Your task to perform on an android device: create a new album in the google photos Image 0: 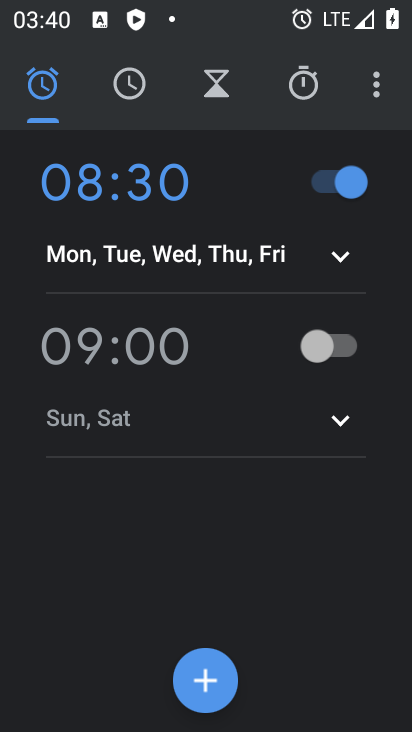
Step 0: press home button
Your task to perform on an android device: create a new album in the google photos Image 1: 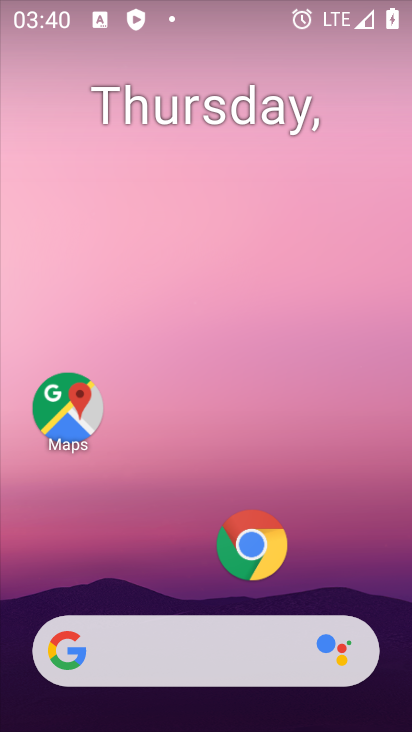
Step 1: drag from (153, 647) to (304, 1)
Your task to perform on an android device: create a new album in the google photos Image 2: 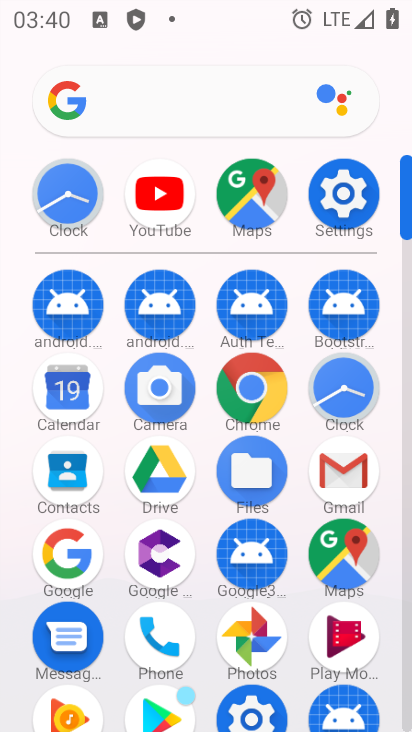
Step 2: click (242, 643)
Your task to perform on an android device: create a new album in the google photos Image 3: 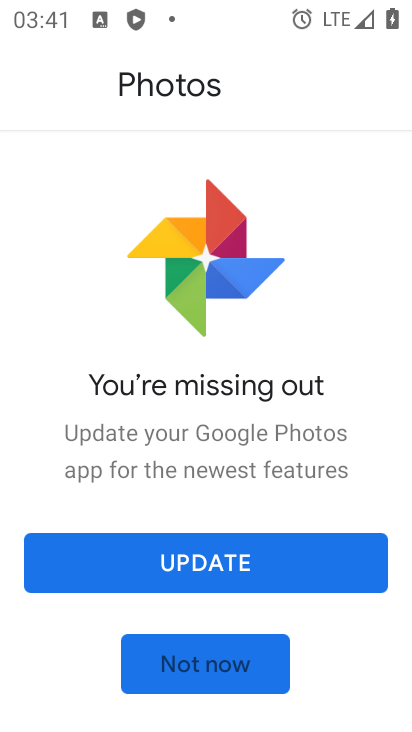
Step 3: click (235, 554)
Your task to perform on an android device: create a new album in the google photos Image 4: 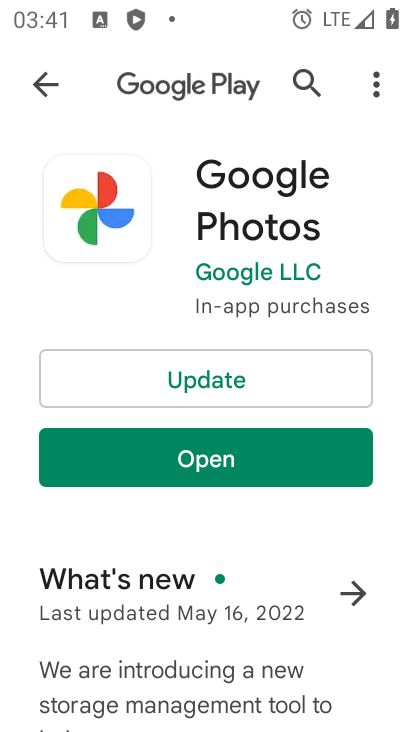
Step 4: click (246, 394)
Your task to perform on an android device: create a new album in the google photos Image 5: 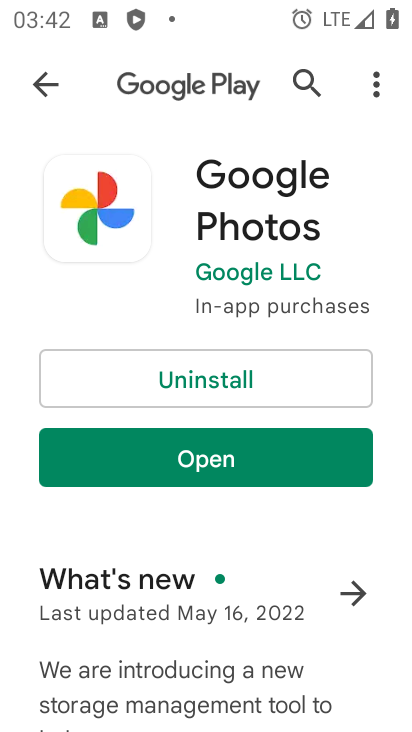
Step 5: click (235, 467)
Your task to perform on an android device: create a new album in the google photos Image 6: 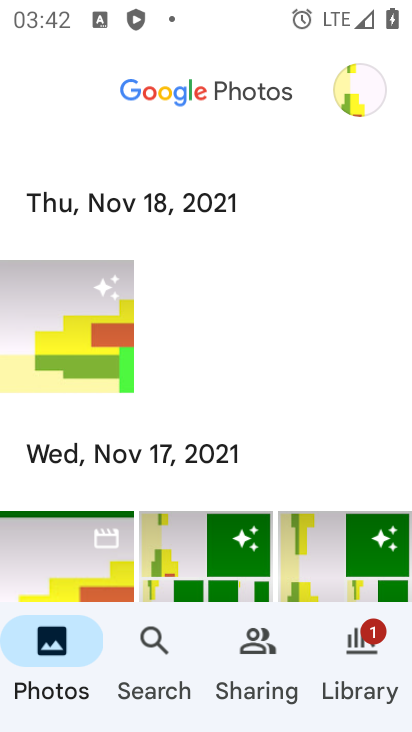
Step 6: drag from (235, 420) to (233, 43)
Your task to perform on an android device: create a new album in the google photos Image 7: 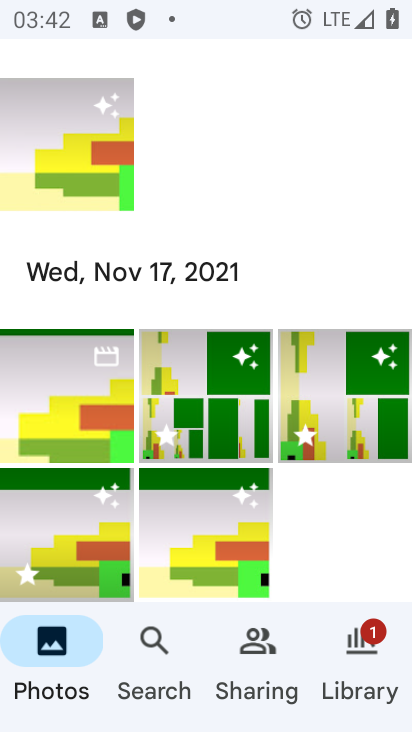
Step 7: drag from (332, 140) to (409, 692)
Your task to perform on an android device: create a new album in the google photos Image 8: 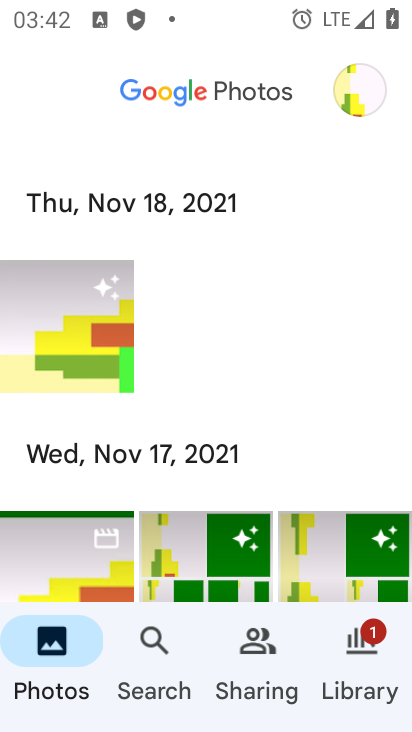
Step 8: click (369, 656)
Your task to perform on an android device: create a new album in the google photos Image 9: 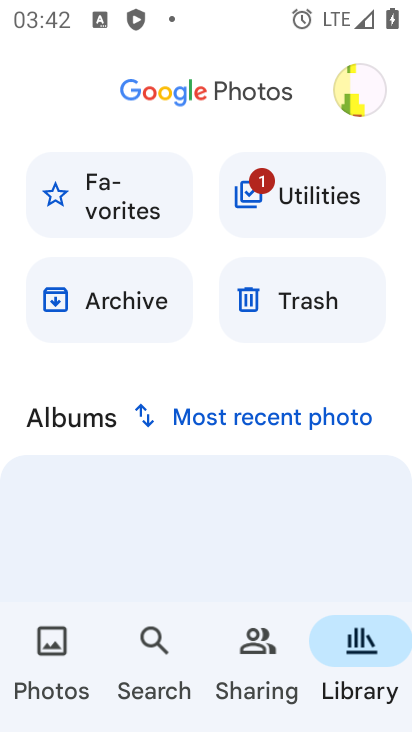
Step 9: drag from (178, 530) to (230, 77)
Your task to perform on an android device: create a new album in the google photos Image 10: 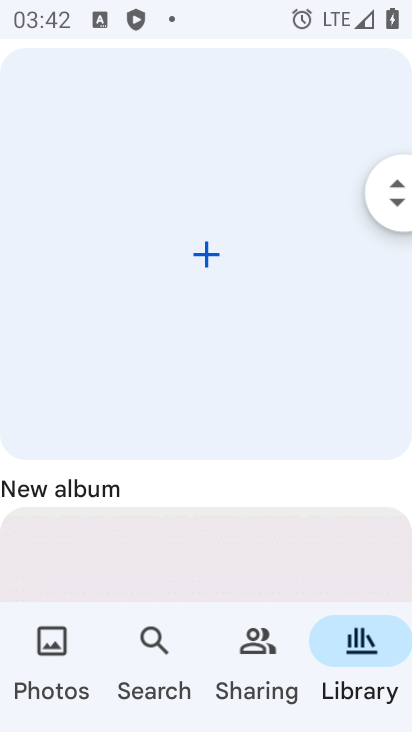
Step 10: click (190, 252)
Your task to perform on an android device: create a new album in the google photos Image 11: 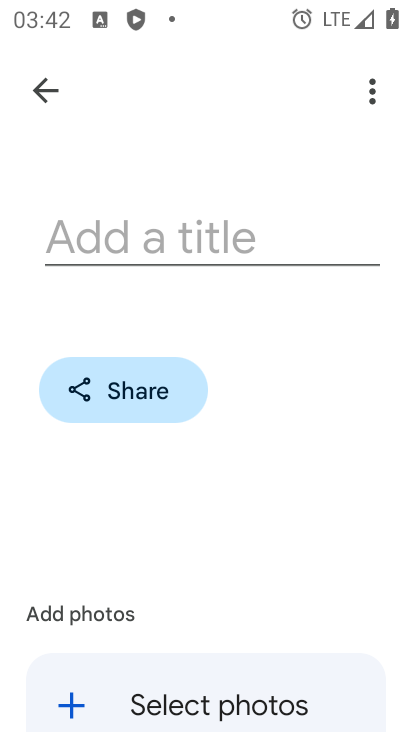
Step 11: click (337, 249)
Your task to perform on an android device: create a new album in the google photos Image 12: 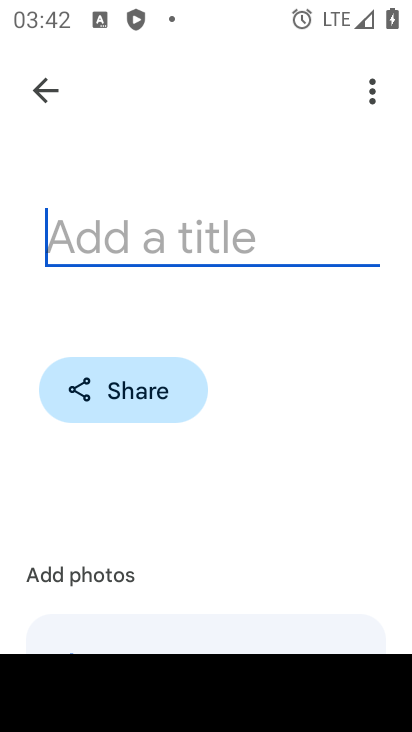
Step 12: type "klssnkhfhkf"
Your task to perform on an android device: create a new album in the google photos Image 13: 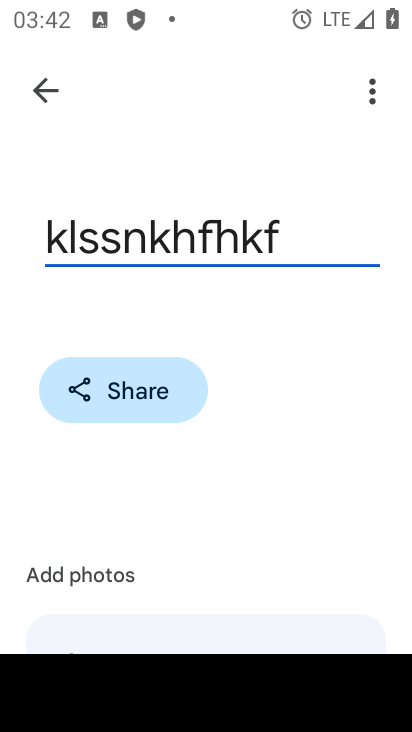
Step 13: drag from (215, 531) to (235, 90)
Your task to perform on an android device: create a new album in the google photos Image 14: 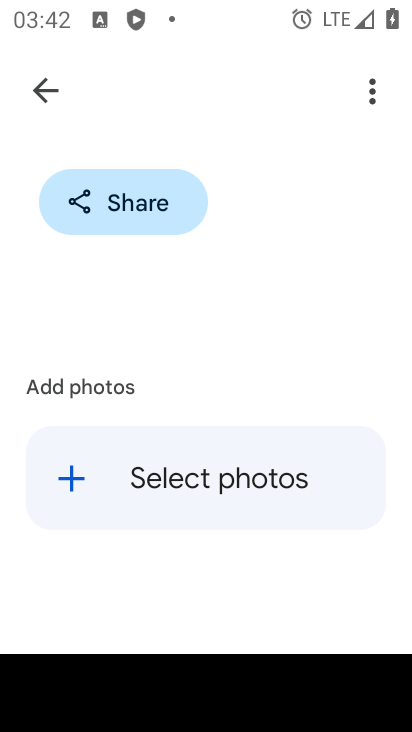
Step 14: click (74, 476)
Your task to perform on an android device: create a new album in the google photos Image 15: 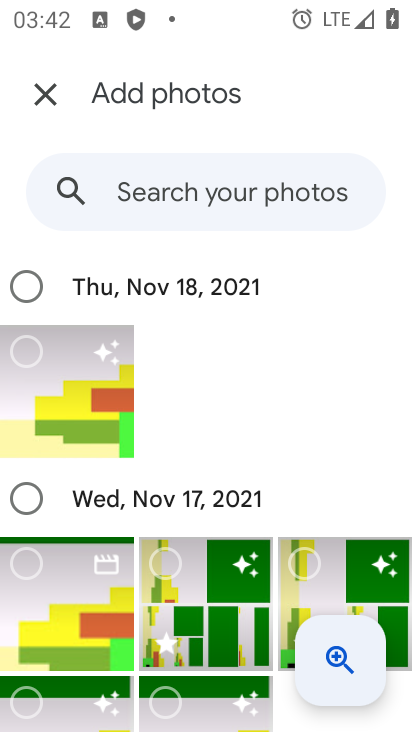
Step 15: click (85, 393)
Your task to perform on an android device: create a new album in the google photos Image 16: 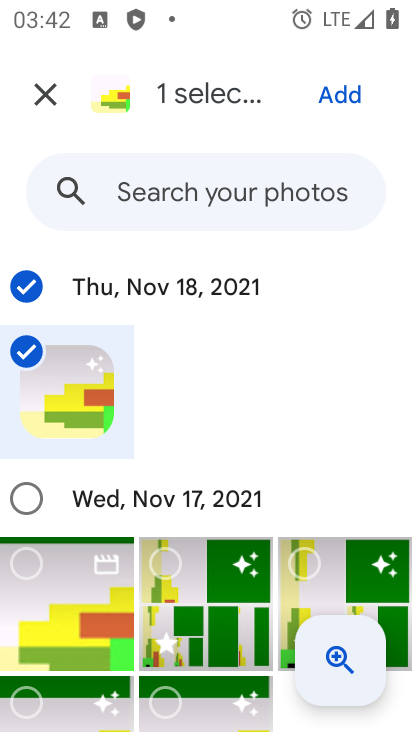
Step 16: click (337, 93)
Your task to perform on an android device: create a new album in the google photos Image 17: 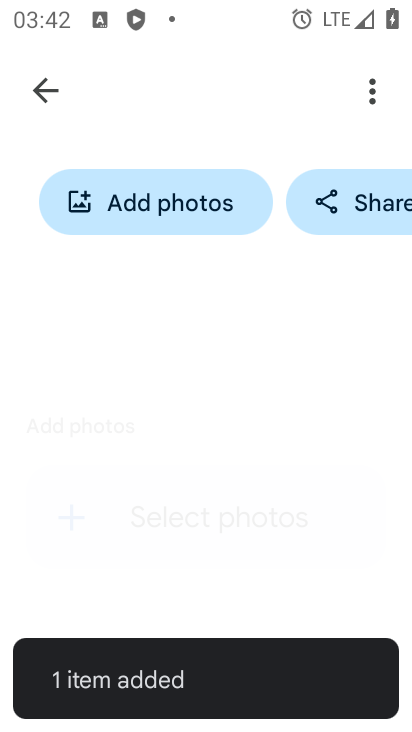
Step 17: task complete